Your task to perform on an android device: Open the calendar and show me this week's events? Image 0: 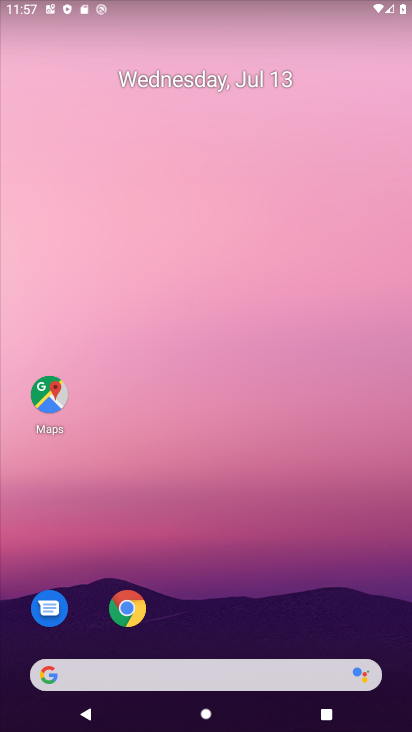
Step 0: drag from (261, 683) to (380, 11)
Your task to perform on an android device: Open the calendar and show me this week's events? Image 1: 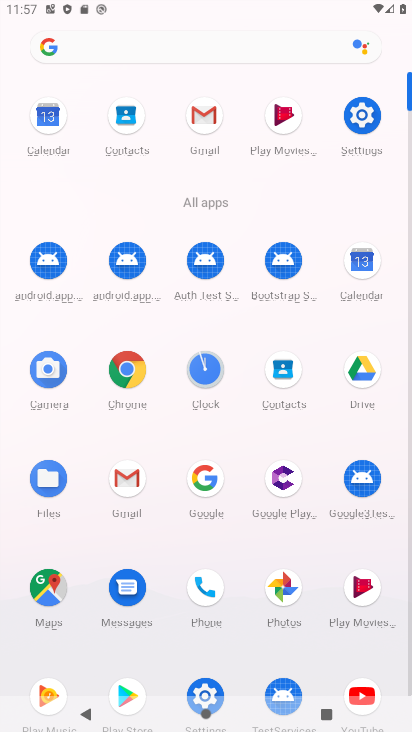
Step 1: click (373, 262)
Your task to perform on an android device: Open the calendar and show me this week's events? Image 2: 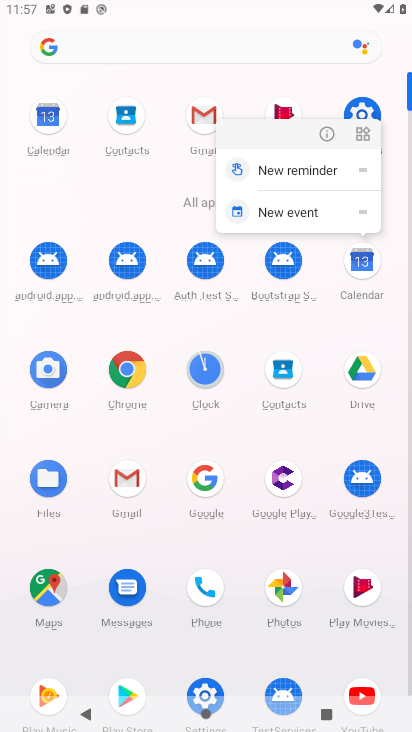
Step 2: click (364, 275)
Your task to perform on an android device: Open the calendar and show me this week's events? Image 3: 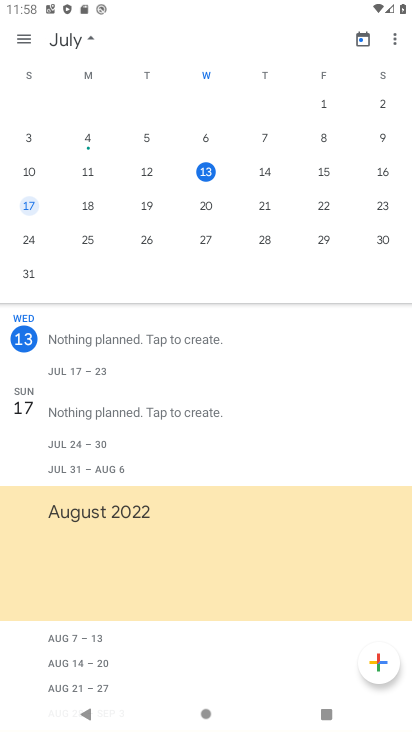
Step 3: click (273, 174)
Your task to perform on an android device: Open the calendar and show me this week's events? Image 4: 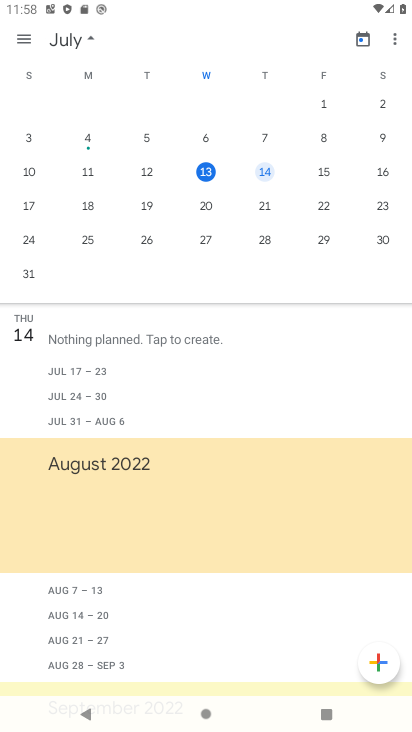
Step 4: task complete